Your task to perform on an android device: move an email to a new category in the gmail app Image 0: 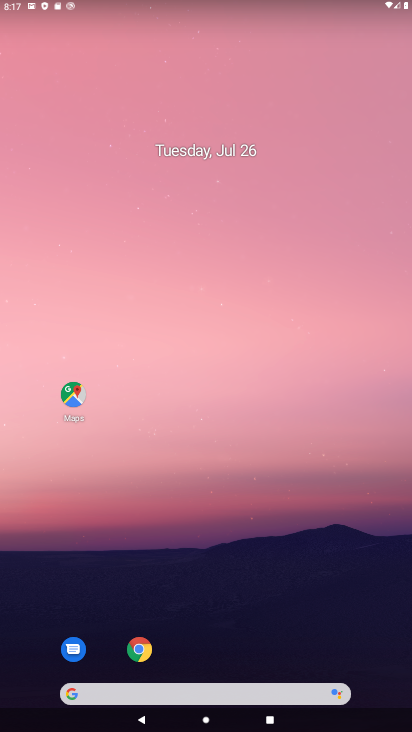
Step 0: drag from (198, 637) to (213, 480)
Your task to perform on an android device: move an email to a new category in the gmail app Image 1: 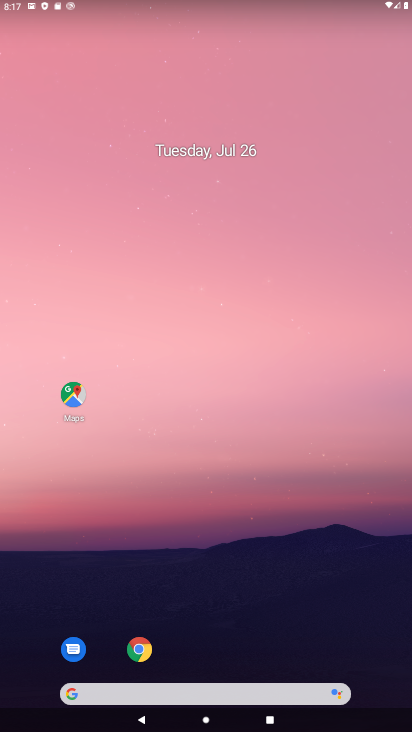
Step 1: drag from (194, 652) to (293, 232)
Your task to perform on an android device: move an email to a new category in the gmail app Image 2: 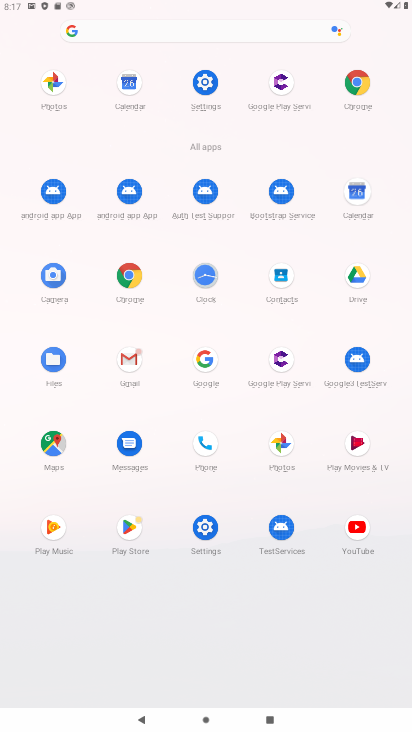
Step 2: click (120, 352)
Your task to perform on an android device: move an email to a new category in the gmail app Image 3: 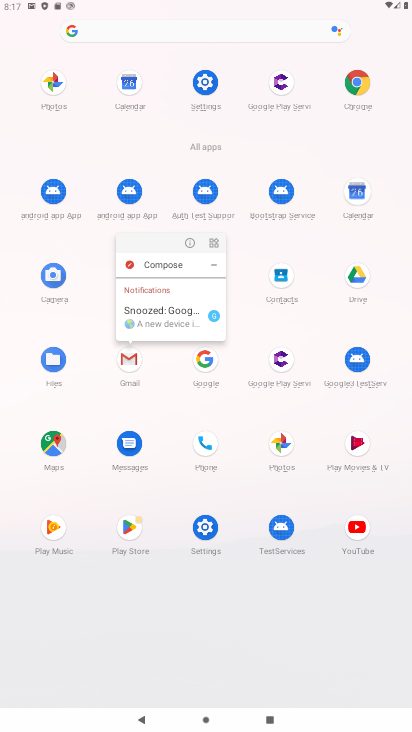
Step 3: click (190, 245)
Your task to perform on an android device: move an email to a new category in the gmail app Image 4: 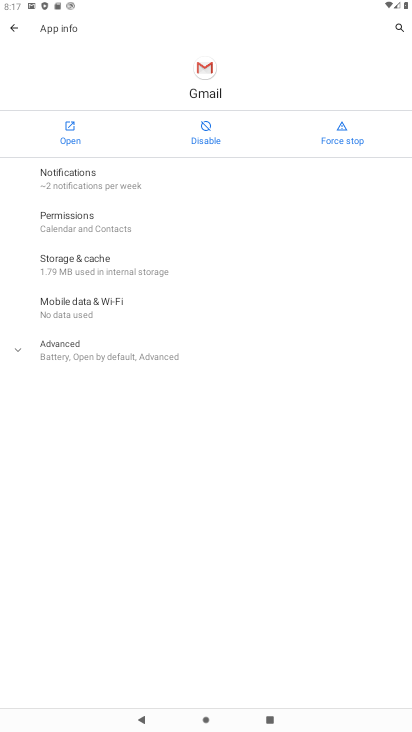
Step 4: click (68, 125)
Your task to perform on an android device: move an email to a new category in the gmail app Image 5: 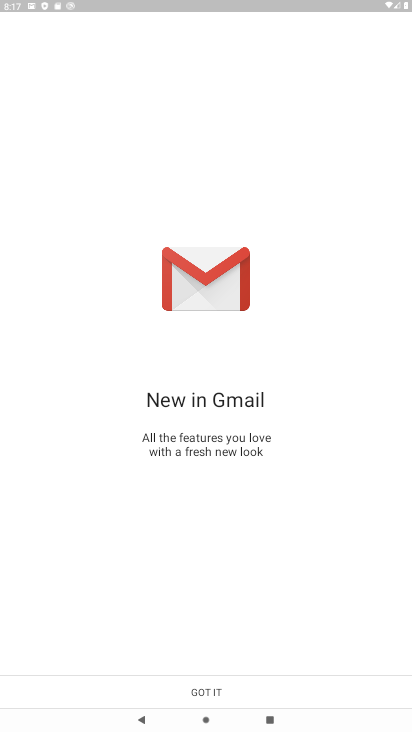
Step 5: drag from (221, 626) to (230, 303)
Your task to perform on an android device: move an email to a new category in the gmail app Image 6: 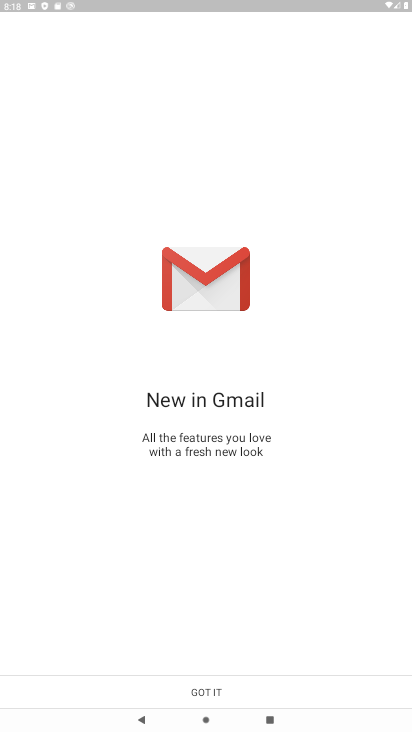
Step 6: click (210, 699)
Your task to perform on an android device: move an email to a new category in the gmail app Image 7: 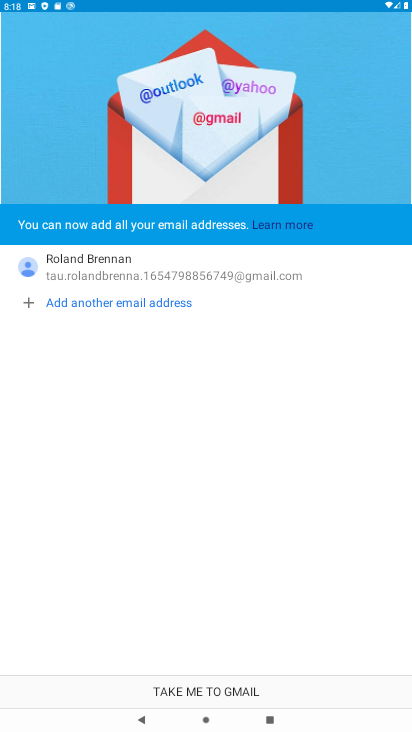
Step 7: click (187, 693)
Your task to perform on an android device: move an email to a new category in the gmail app Image 8: 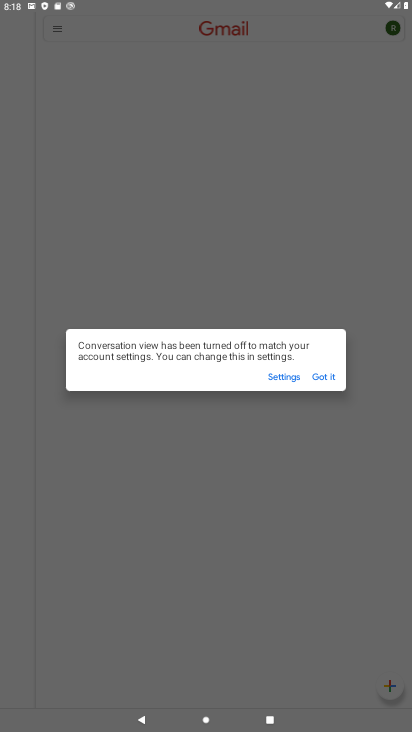
Step 8: drag from (227, 451) to (229, 126)
Your task to perform on an android device: move an email to a new category in the gmail app Image 9: 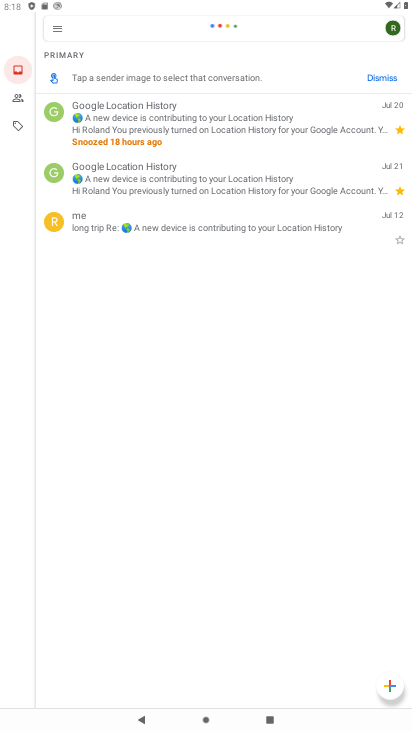
Step 9: drag from (311, 499) to (314, 332)
Your task to perform on an android device: move an email to a new category in the gmail app Image 10: 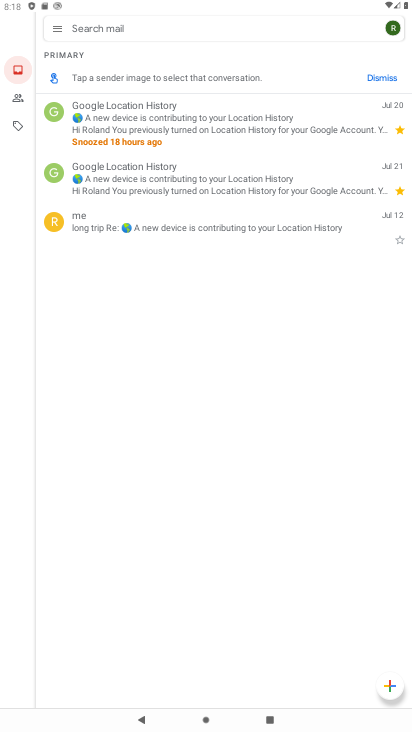
Step 10: click (300, 134)
Your task to perform on an android device: move an email to a new category in the gmail app Image 11: 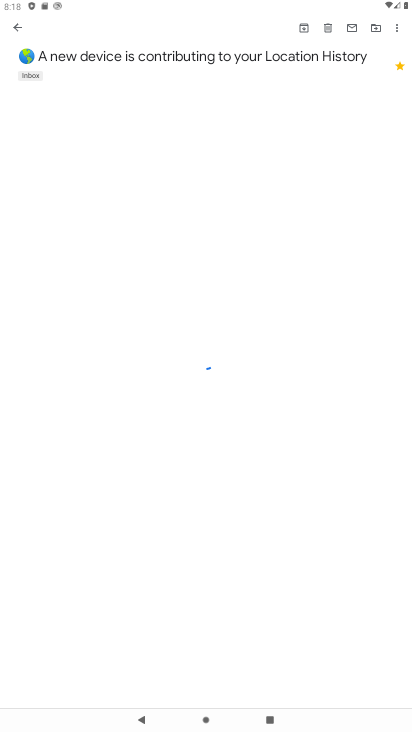
Step 11: click (399, 58)
Your task to perform on an android device: move an email to a new category in the gmail app Image 12: 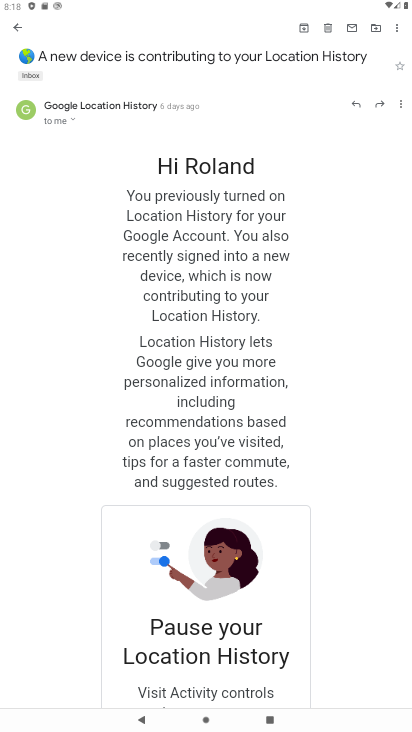
Step 12: task complete